Your task to perform on an android device: Open CNN.com Image 0: 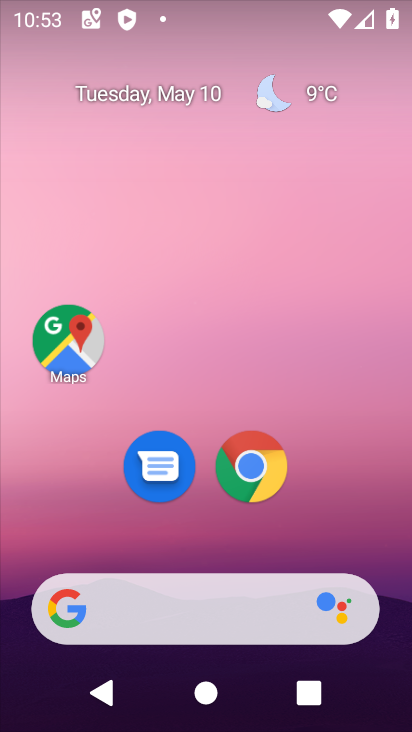
Step 0: click (266, 452)
Your task to perform on an android device: Open CNN.com Image 1: 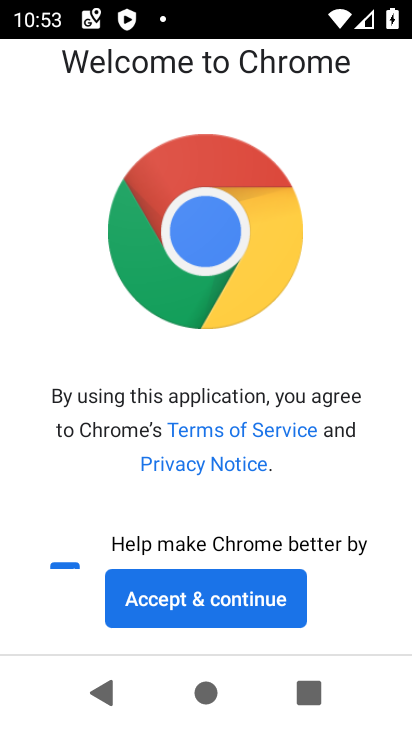
Step 1: click (230, 591)
Your task to perform on an android device: Open CNN.com Image 2: 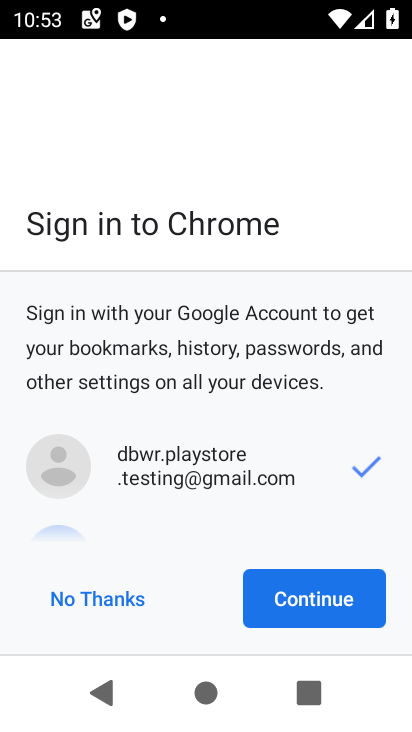
Step 2: click (327, 604)
Your task to perform on an android device: Open CNN.com Image 3: 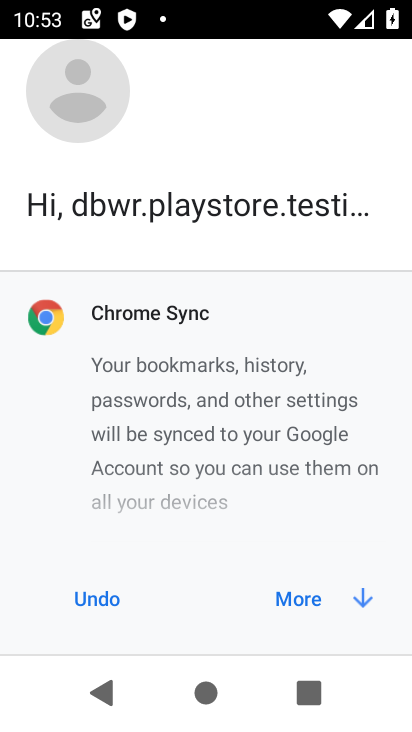
Step 3: click (327, 604)
Your task to perform on an android device: Open CNN.com Image 4: 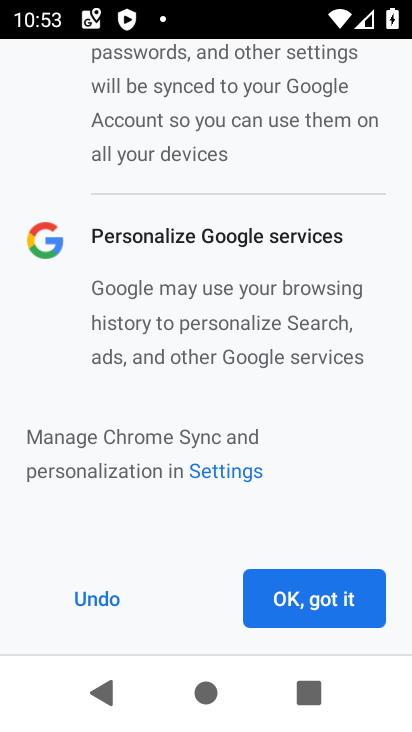
Step 4: click (328, 604)
Your task to perform on an android device: Open CNN.com Image 5: 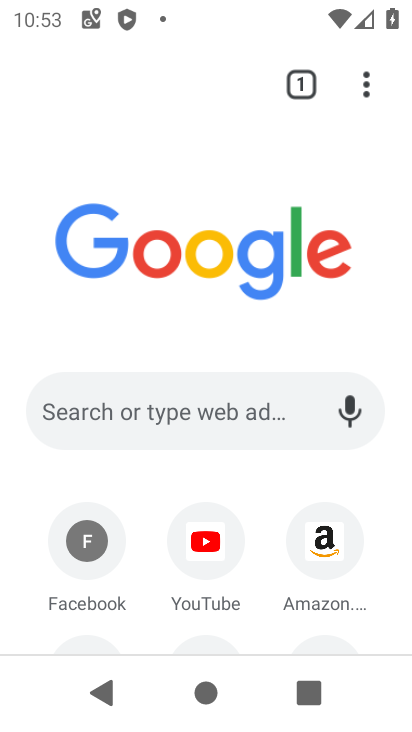
Step 5: click (216, 401)
Your task to perform on an android device: Open CNN.com Image 6: 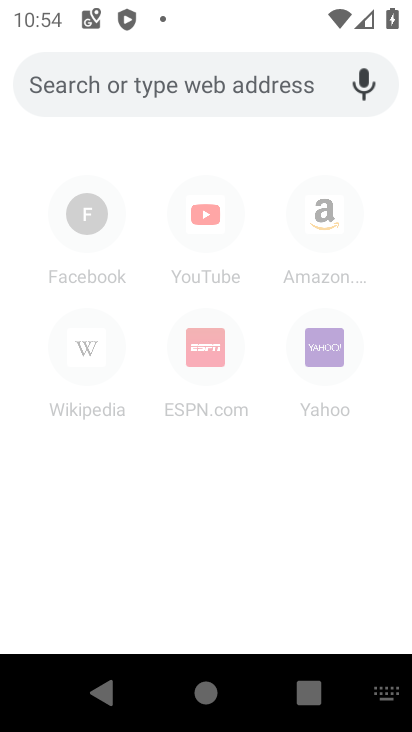
Step 6: type "CNN.com"
Your task to perform on an android device: Open CNN.com Image 7: 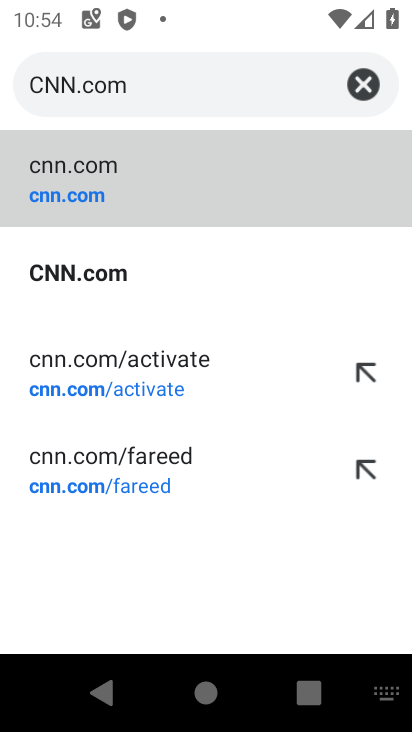
Step 7: click (131, 203)
Your task to perform on an android device: Open CNN.com Image 8: 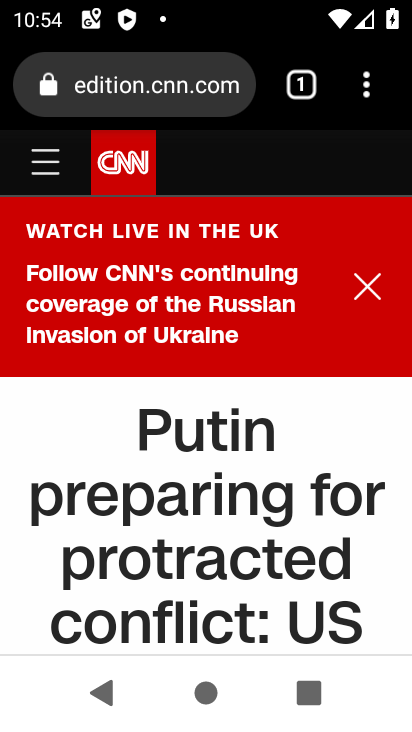
Step 8: task complete